Your task to perform on an android device: Add "bose soundlink" to the cart on target.com Image 0: 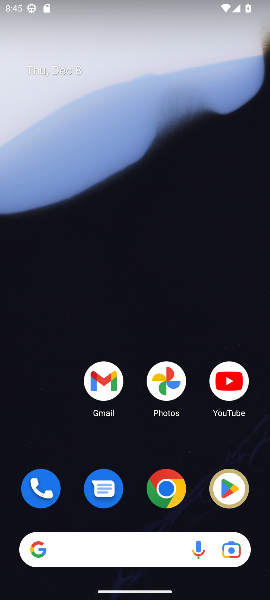
Step 0: drag from (120, 524) to (131, 128)
Your task to perform on an android device: Add "bose soundlink" to the cart on target.com Image 1: 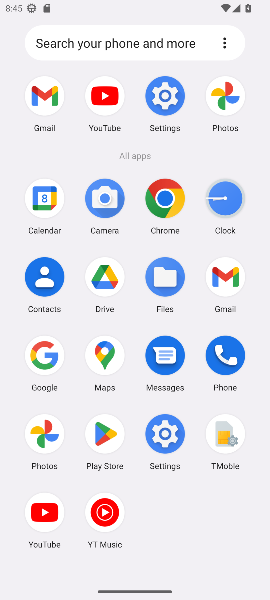
Step 1: click (43, 359)
Your task to perform on an android device: Add "bose soundlink" to the cart on target.com Image 2: 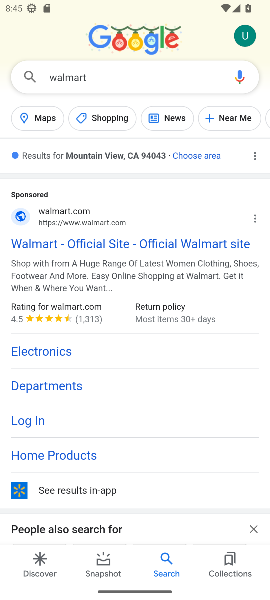
Step 2: click (58, 69)
Your task to perform on an android device: Add "bose soundlink" to the cart on target.com Image 3: 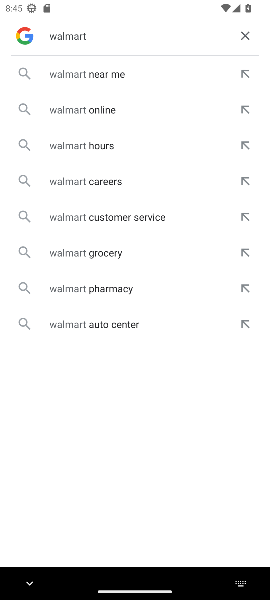
Step 3: click (243, 40)
Your task to perform on an android device: Add "bose soundlink" to the cart on target.com Image 4: 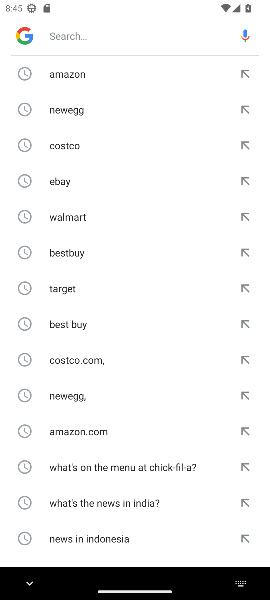
Step 4: click (65, 288)
Your task to perform on an android device: Add "bose soundlink" to the cart on target.com Image 5: 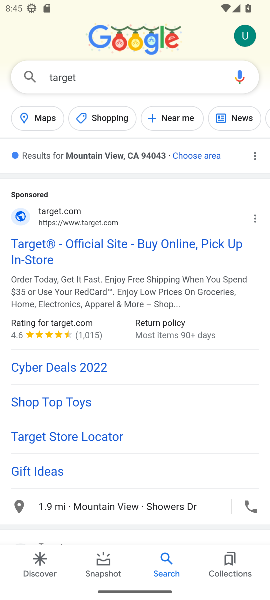
Step 5: click (55, 251)
Your task to perform on an android device: Add "bose soundlink" to the cart on target.com Image 6: 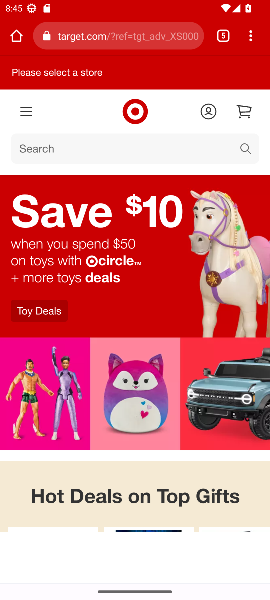
Step 6: click (33, 143)
Your task to perform on an android device: Add "bose soundlink" to the cart on target.com Image 7: 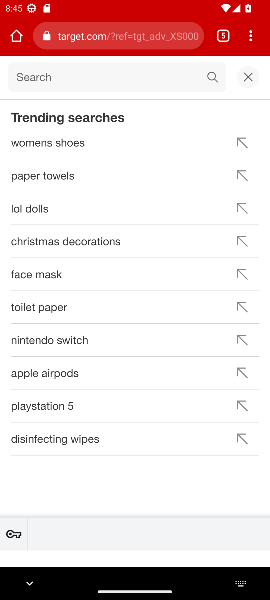
Step 7: type "bose soundlink"
Your task to perform on an android device: Add "bose soundlink" to the cart on target.com Image 8: 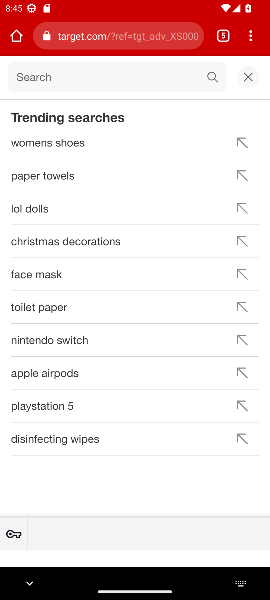
Step 8: click (209, 77)
Your task to perform on an android device: Add "bose soundlink" to the cart on target.com Image 9: 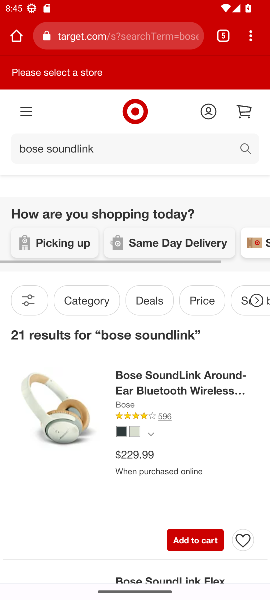
Step 9: click (182, 542)
Your task to perform on an android device: Add "bose soundlink" to the cart on target.com Image 10: 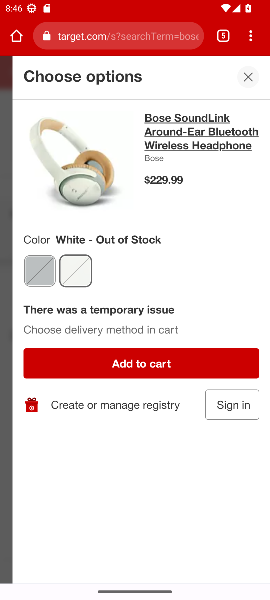
Step 10: click (134, 365)
Your task to perform on an android device: Add "bose soundlink" to the cart on target.com Image 11: 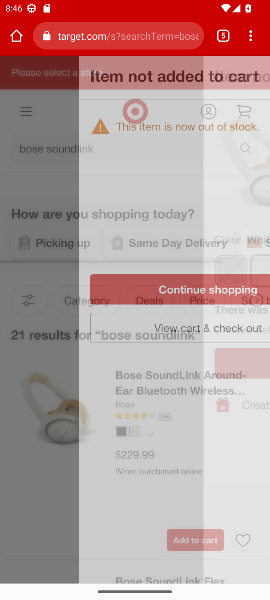
Step 11: task complete